Your task to perform on an android device: Open Amazon Image 0: 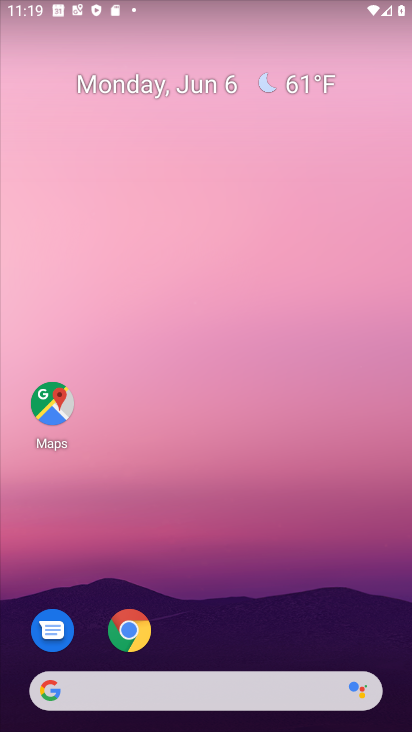
Step 0: drag from (292, 473) to (292, 196)
Your task to perform on an android device: Open Amazon Image 1: 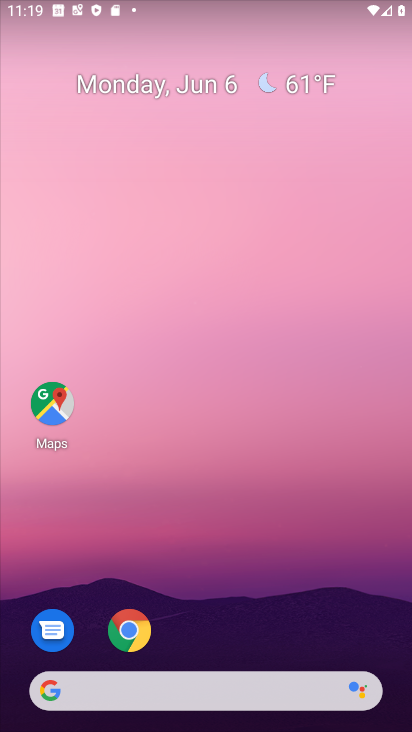
Step 1: drag from (261, 545) to (274, 261)
Your task to perform on an android device: Open Amazon Image 2: 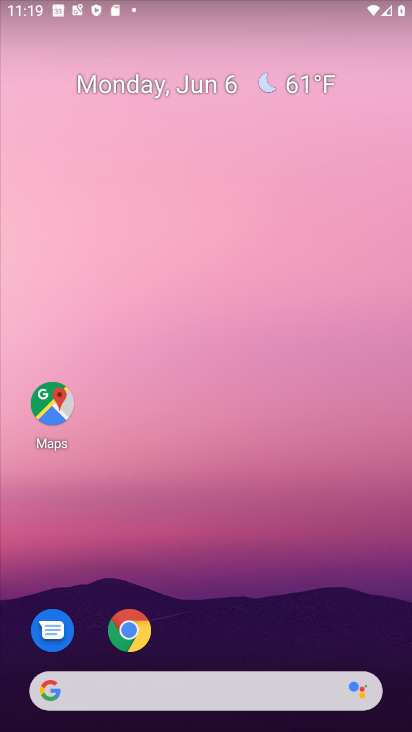
Step 2: drag from (224, 624) to (252, 225)
Your task to perform on an android device: Open Amazon Image 3: 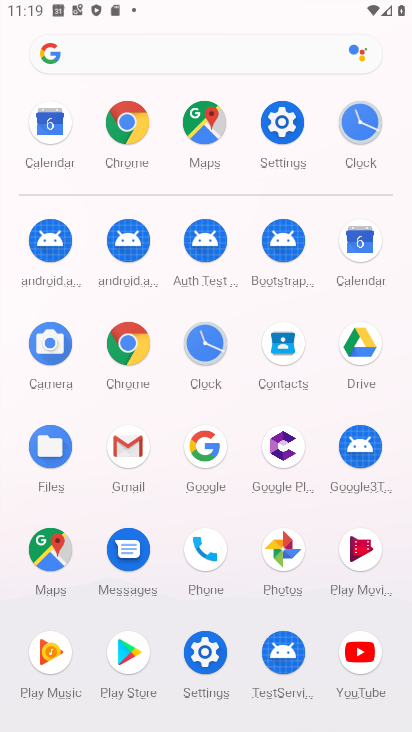
Step 3: click (114, 141)
Your task to perform on an android device: Open Amazon Image 4: 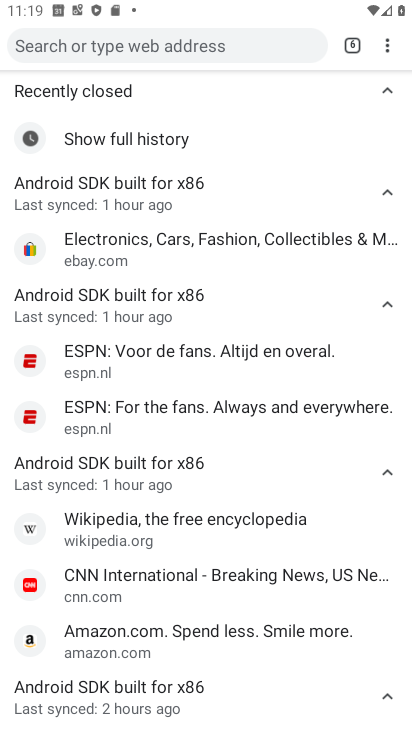
Step 4: click (357, 53)
Your task to perform on an android device: Open Amazon Image 5: 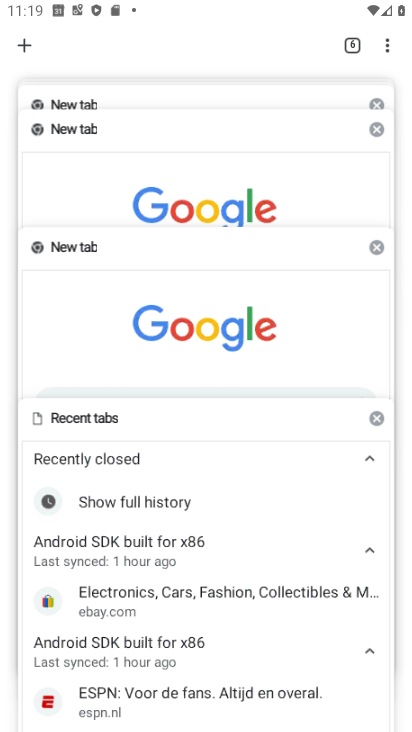
Step 5: click (20, 46)
Your task to perform on an android device: Open Amazon Image 6: 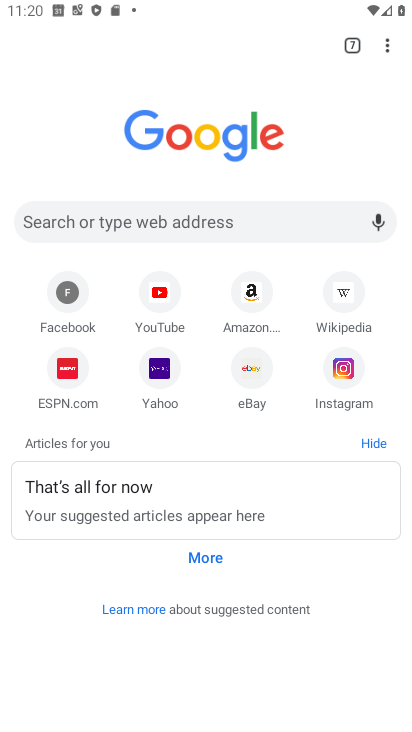
Step 6: click (257, 292)
Your task to perform on an android device: Open Amazon Image 7: 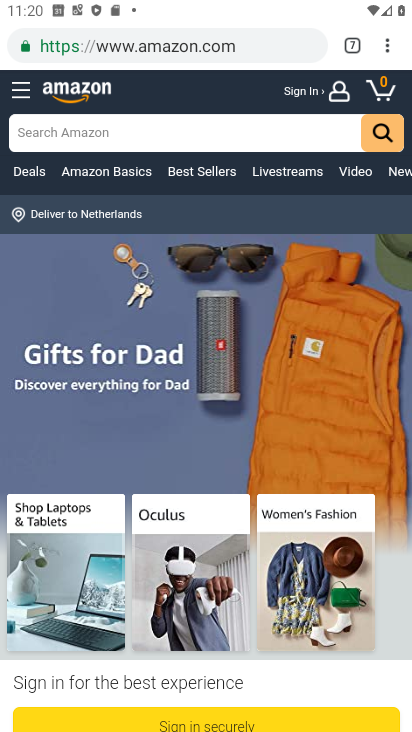
Step 7: task complete